Your task to perform on an android device: Do I have any events today? Image 0: 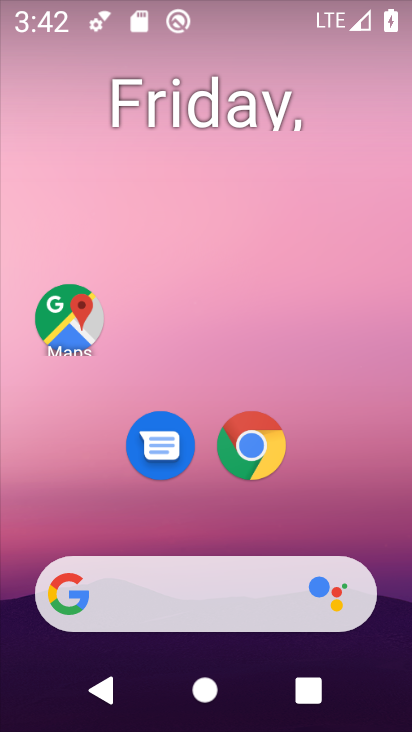
Step 0: drag from (405, 561) to (313, 93)
Your task to perform on an android device: Do I have any events today? Image 1: 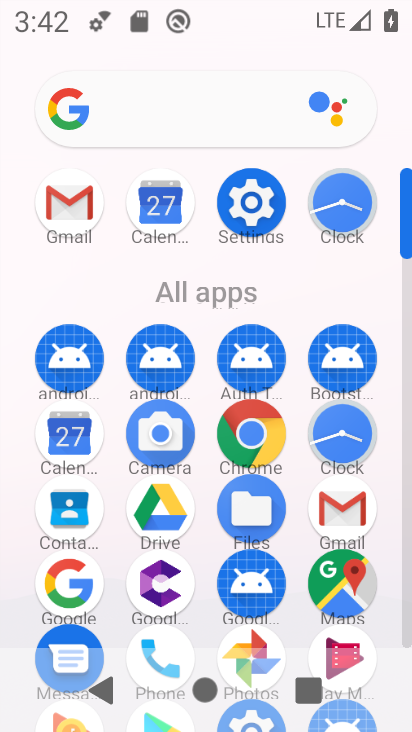
Step 1: click (174, 195)
Your task to perform on an android device: Do I have any events today? Image 2: 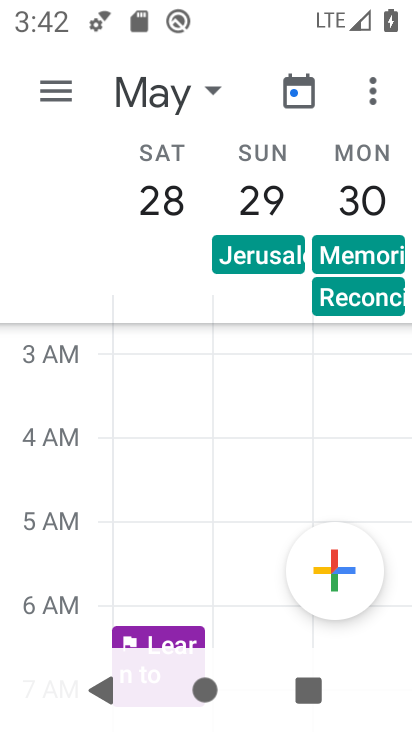
Step 2: click (45, 110)
Your task to perform on an android device: Do I have any events today? Image 3: 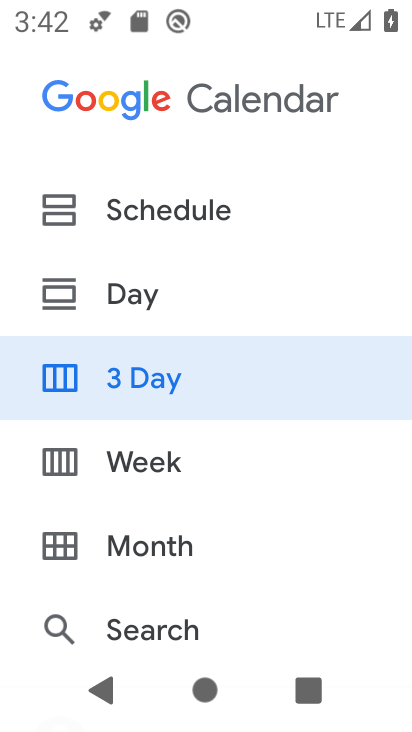
Step 3: drag from (155, 608) to (131, 95)
Your task to perform on an android device: Do I have any events today? Image 4: 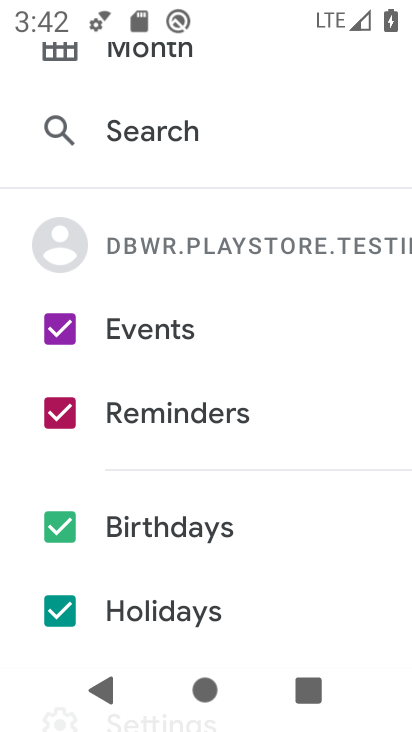
Step 4: click (67, 605)
Your task to perform on an android device: Do I have any events today? Image 5: 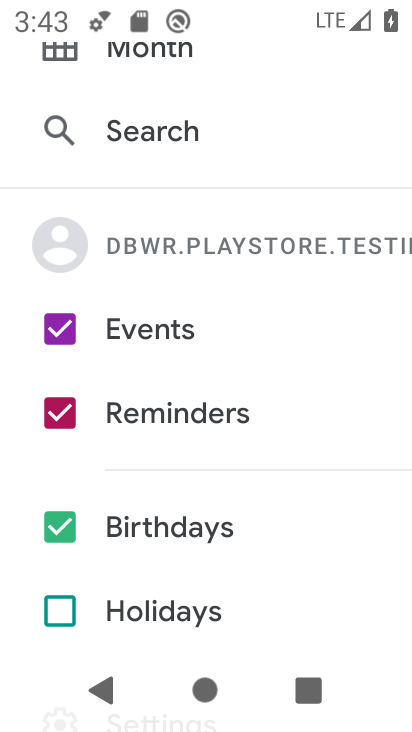
Step 5: click (64, 536)
Your task to perform on an android device: Do I have any events today? Image 6: 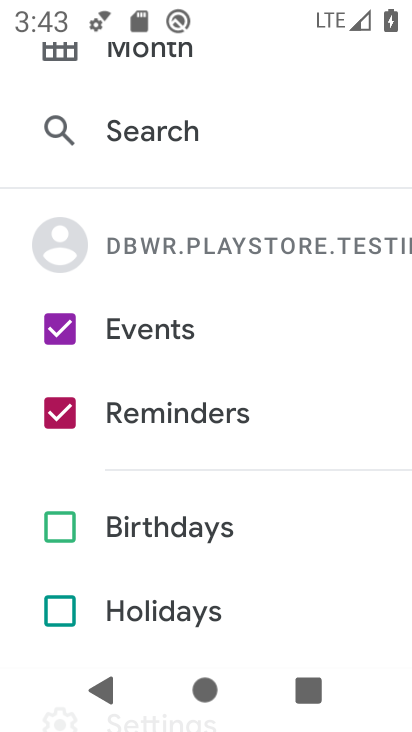
Step 6: click (58, 418)
Your task to perform on an android device: Do I have any events today? Image 7: 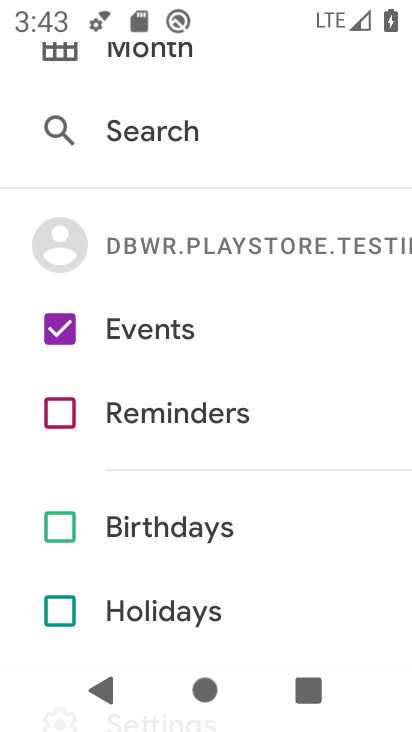
Step 7: drag from (176, 116) to (170, 508)
Your task to perform on an android device: Do I have any events today? Image 8: 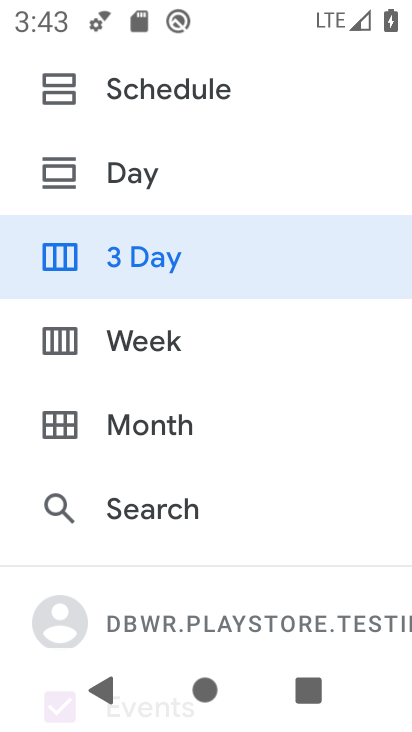
Step 8: click (147, 205)
Your task to perform on an android device: Do I have any events today? Image 9: 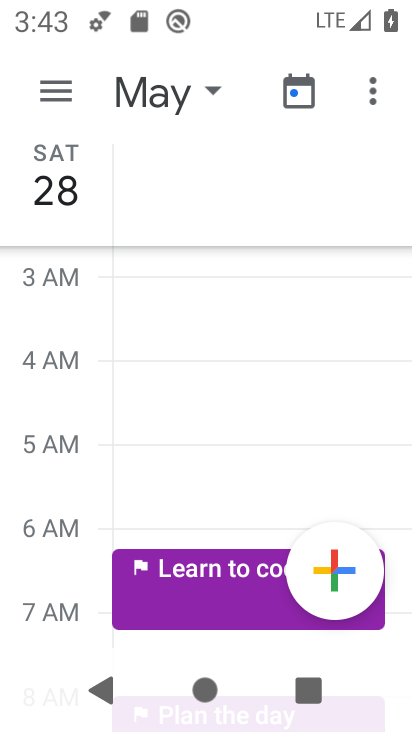
Step 9: click (202, 101)
Your task to perform on an android device: Do I have any events today? Image 10: 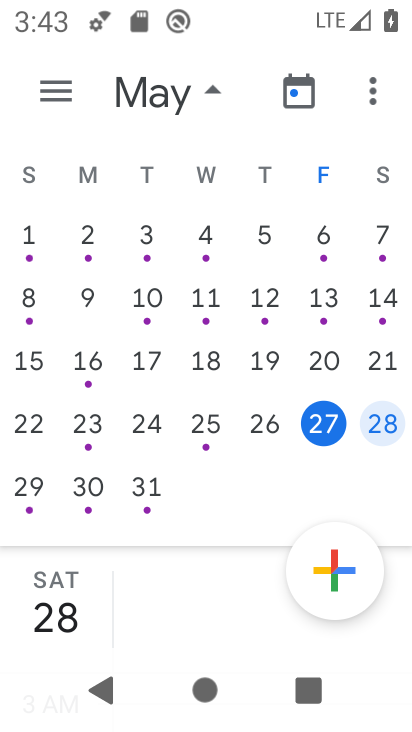
Step 10: click (319, 424)
Your task to perform on an android device: Do I have any events today? Image 11: 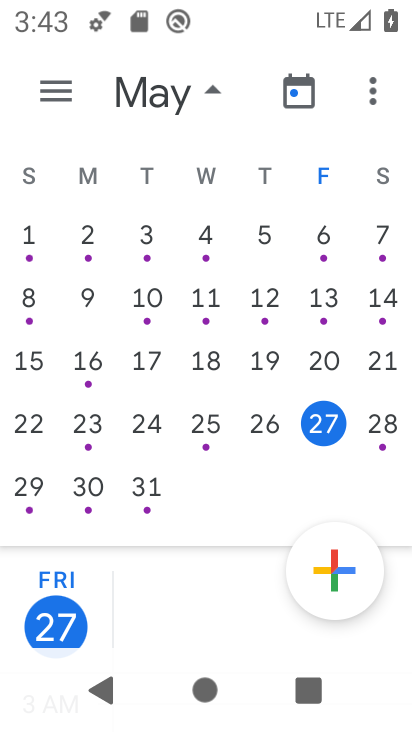
Step 11: click (178, 85)
Your task to perform on an android device: Do I have any events today? Image 12: 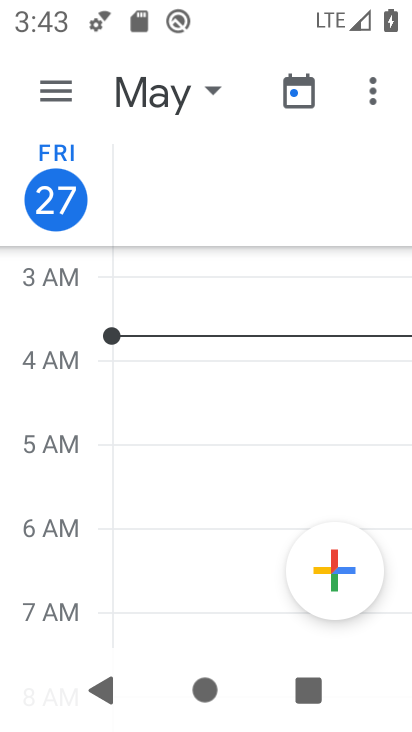
Step 12: task complete